Your task to perform on an android device: Go to battery settings Image 0: 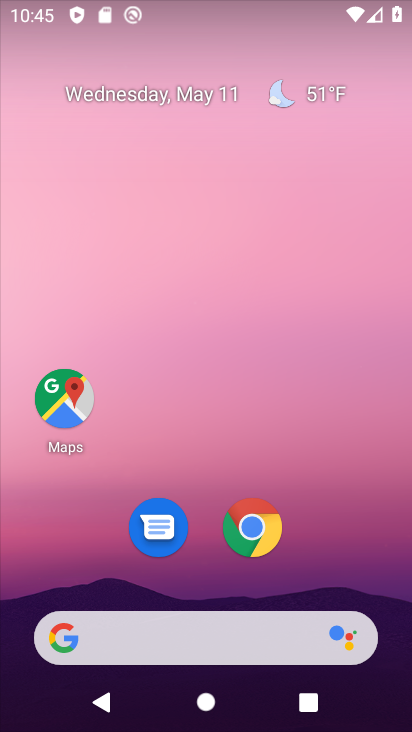
Step 0: drag from (332, 552) to (293, 49)
Your task to perform on an android device: Go to battery settings Image 1: 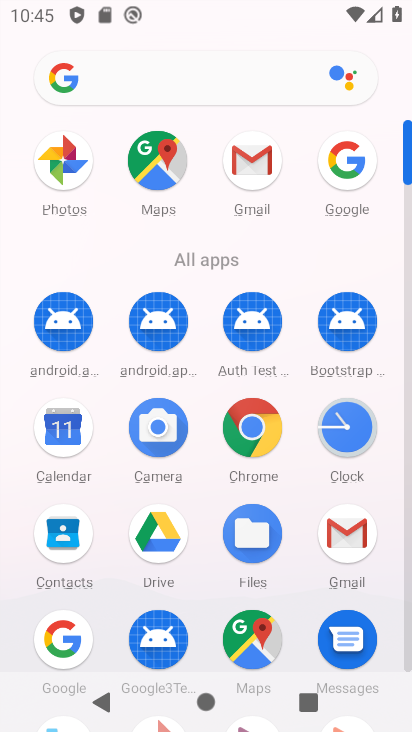
Step 1: drag from (307, 487) to (324, 259)
Your task to perform on an android device: Go to battery settings Image 2: 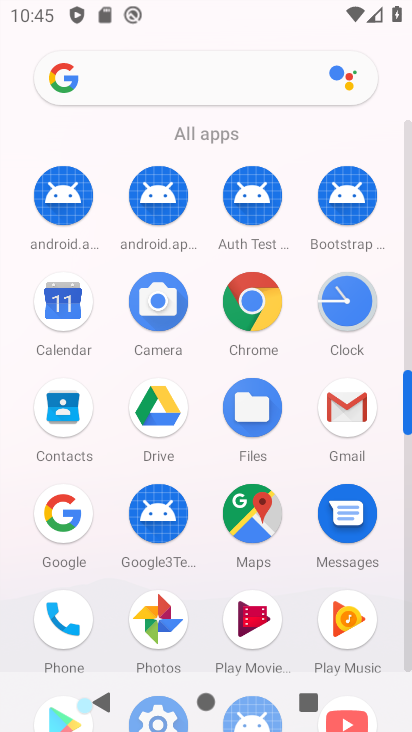
Step 2: drag from (216, 522) to (228, 301)
Your task to perform on an android device: Go to battery settings Image 3: 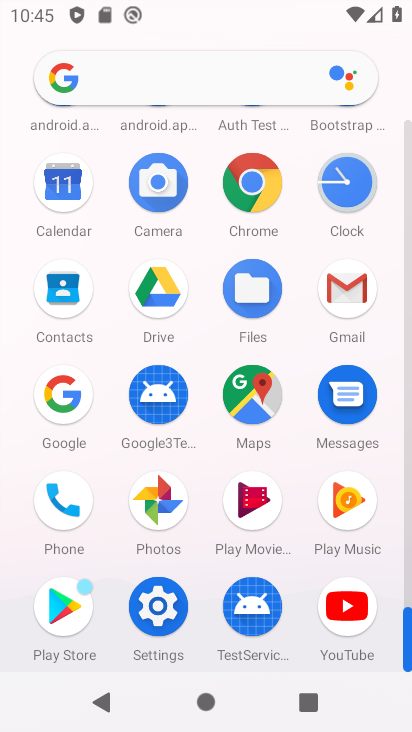
Step 3: click (157, 605)
Your task to perform on an android device: Go to battery settings Image 4: 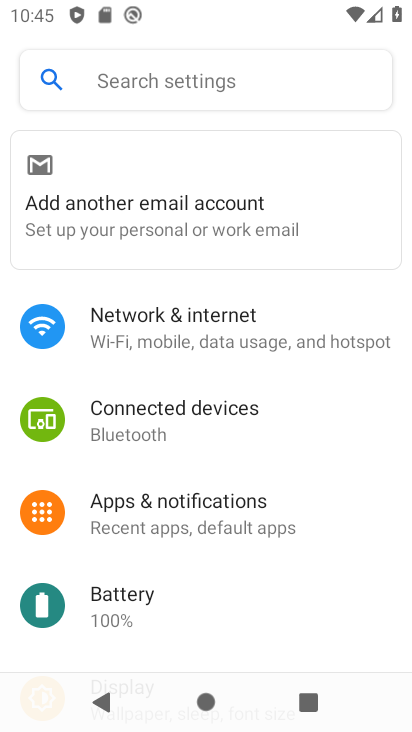
Step 4: drag from (167, 455) to (236, 354)
Your task to perform on an android device: Go to battery settings Image 5: 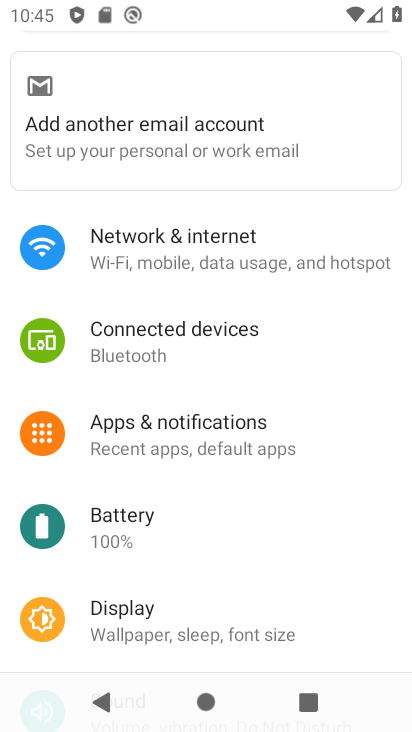
Step 5: click (110, 510)
Your task to perform on an android device: Go to battery settings Image 6: 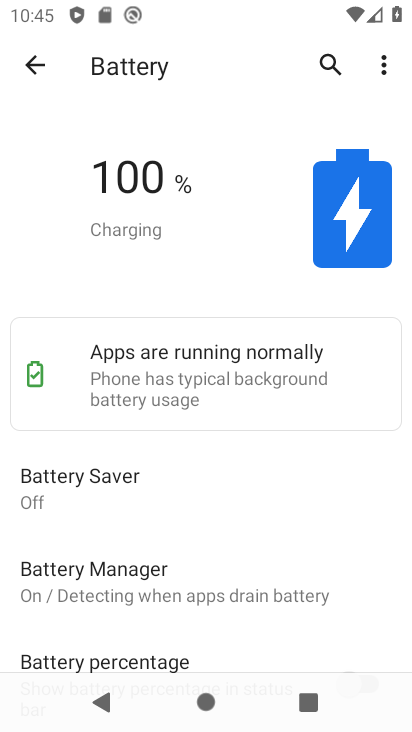
Step 6: task complete